Your task to perform on an android device: Open Google Chrome and click the shortcut for Amazon.com Image 0: 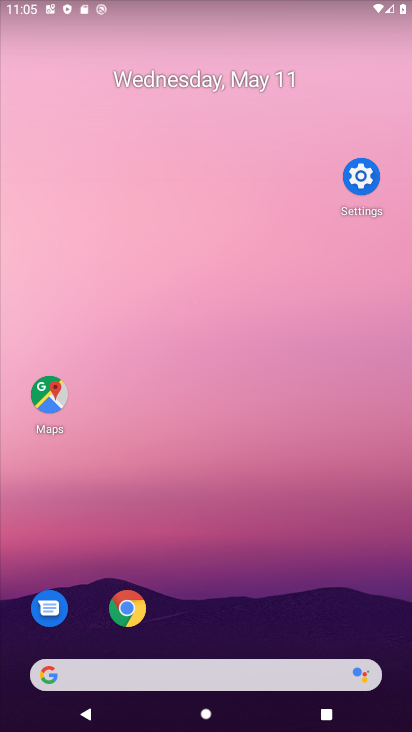
Step 0: drag from (340, 654) to (163, 180)
Your task to perform on an android device: Open Google Chrome and click the shortcut for Amazon.com Image 1: 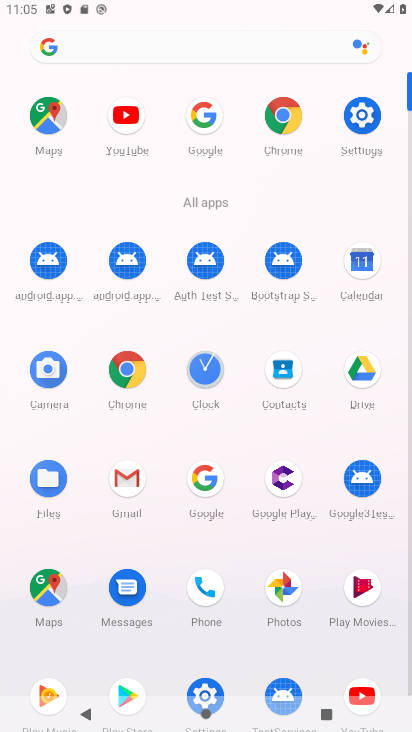
Step 1: click (273, 118)
Your task to perform on an android device: Open Google Chrome and click the shortcut for Amazon.com Image 2: 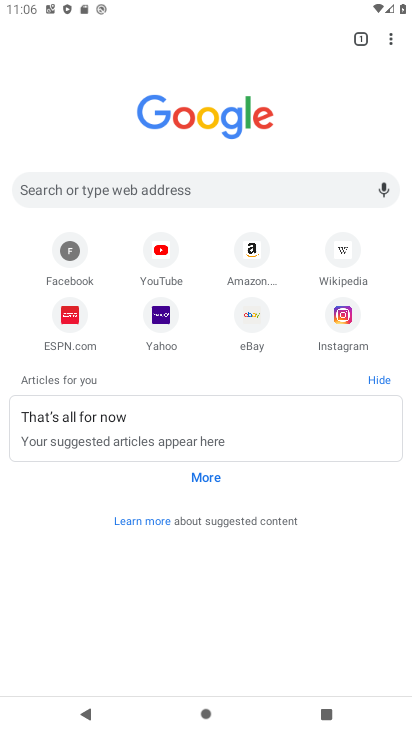
Step 2: press back button
Your task to perform on an android device: Open Google Chrome and click the shortcut for Amazon.com Image 3: 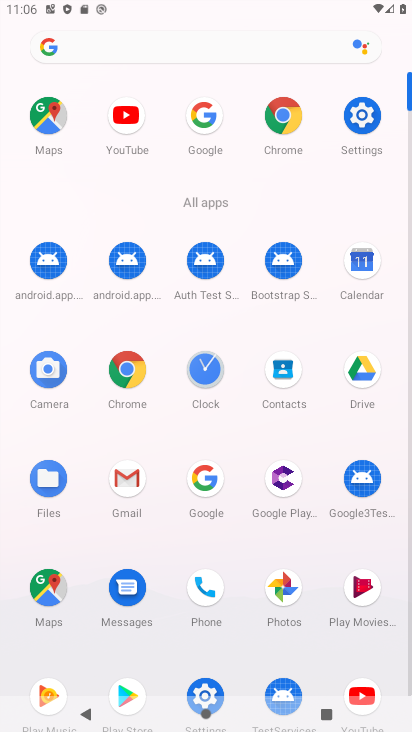
Step 3: click (250, 244)
Your task to perform on an android device: Open Google Chrome and click the shortcut for Amazon.com Image 4: 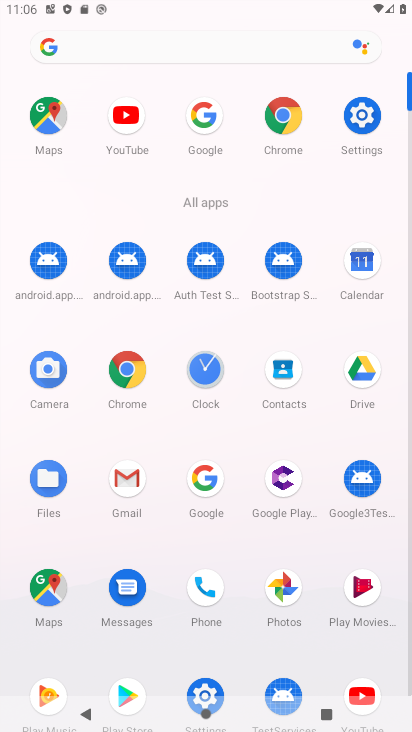
Step 4: click (279, 111)
Your task to perform on an android device: Open Google Chrome and click the shortcut for Amazon.com Image 5: 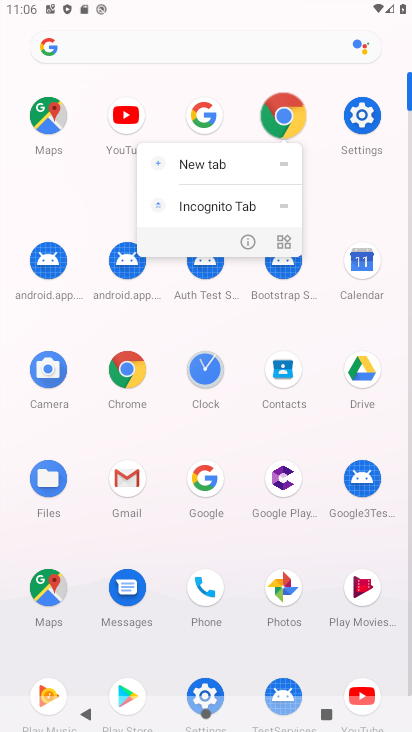
Step 5: click (279, 111)
Your task to perform on an android device: Open Google Chrome and click the shortcut for Amazon.com Image 6: 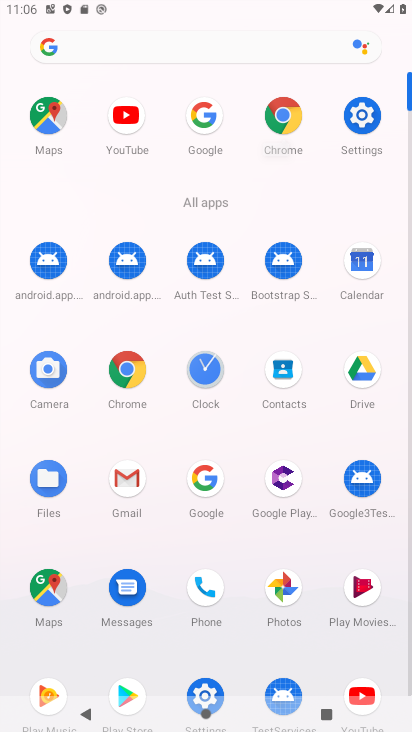
Step 6: click (279, 111)
Your task to perform on an android device: Open Google Chrome and click the shortcut for Amazon.com Image 7: 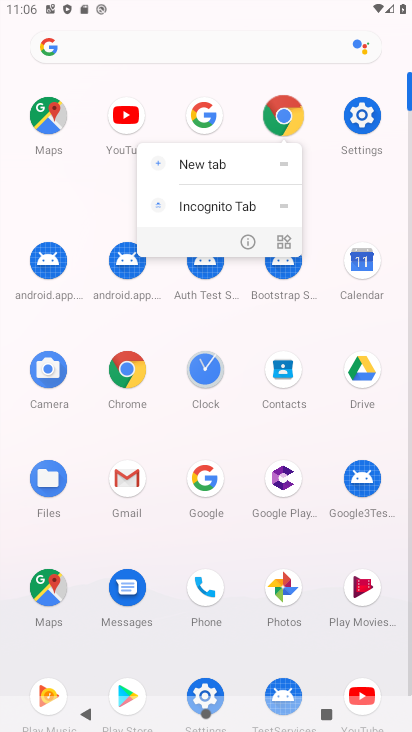
Step 7: click (279, 111)
Your task to perform on an android device: Open Google Chrome and click the shortcut for Amazon.com Image 8: 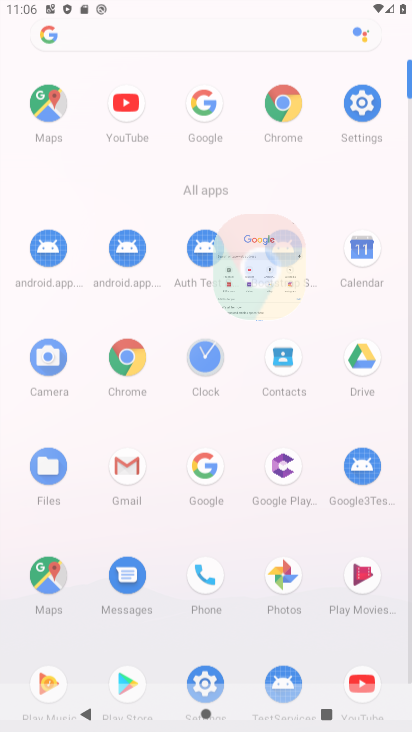
Step 8: click (279, 110)
Your task to perform on an android device: Open Google Chrome and click the shortcut for Amazon.com Image 9: 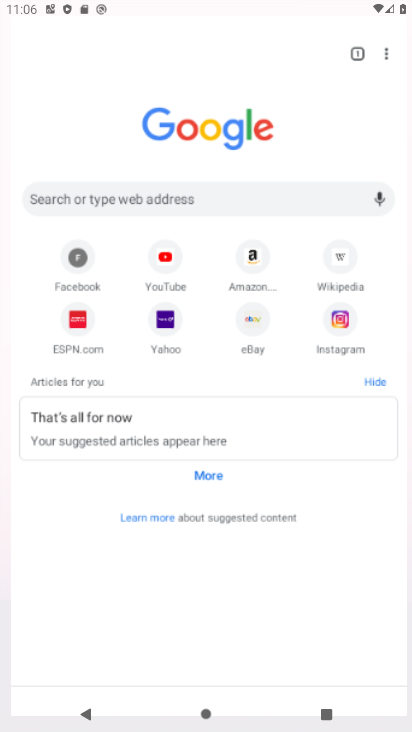
Step 9: click (277, 108)
Your task to perform on an android device: Open Google Chrome and click the shortcut for Amazon.com Image 10: 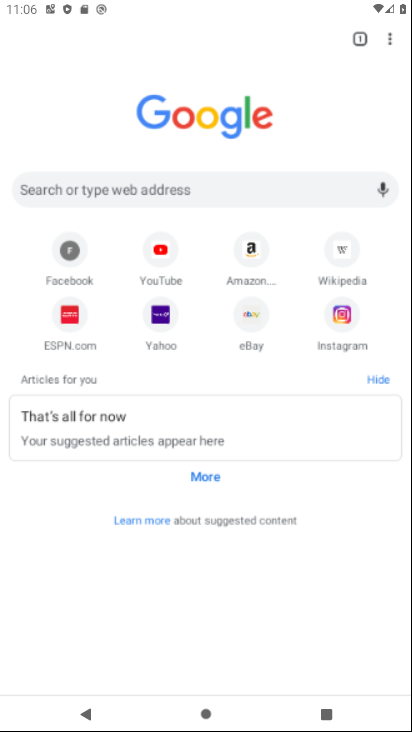
Step 10: click (273, 105)
Your task to perform on an android device: Open Google Chrome and click the shortcut for Amazon.com Image 11: 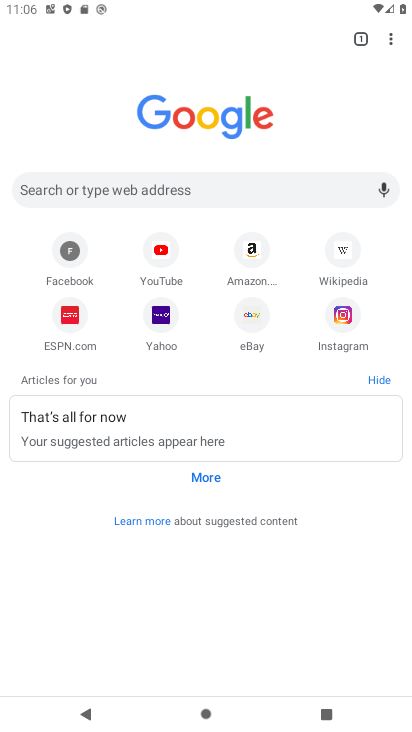
Step 11: click (251, 253)
Your task to perform on an android device: Open Google Chrome and click the shortcut for Amazon.com Image 12: 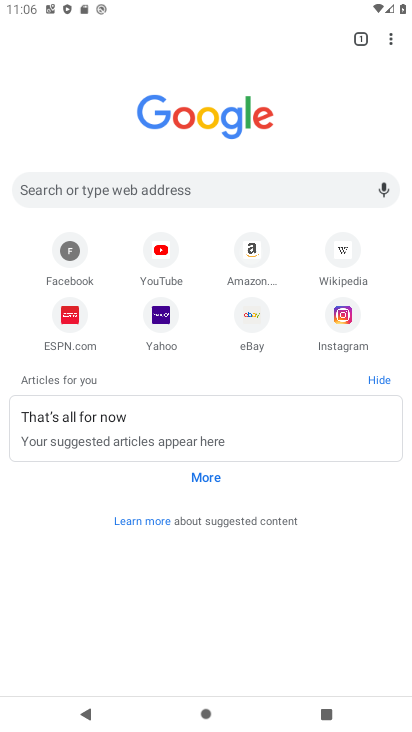
Step 12: click (250, 248)
Your task to perform on an android device: Open Google Chrome and click the shortcut for Amazon.com Image 13: 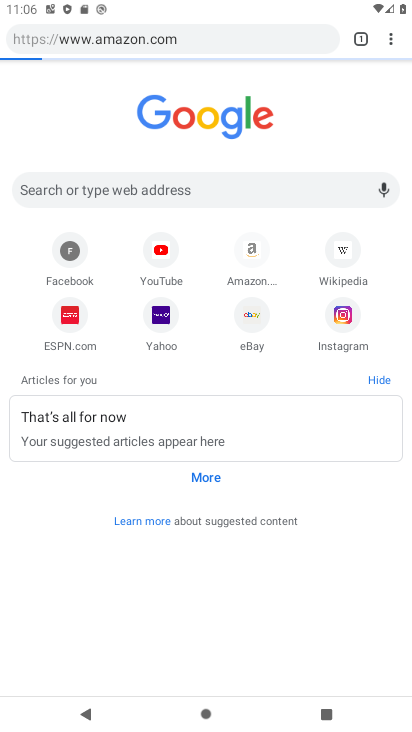
Step 13: click (250, 248)
Your task to perform on an android device: Open Google Chrome and click the shortcut for Amazon.com Image 14: 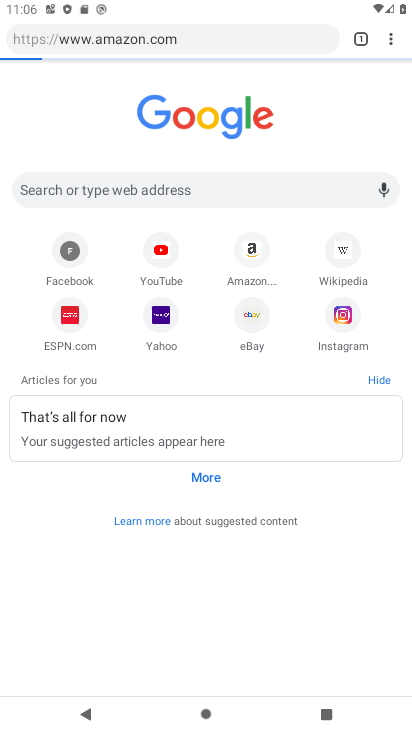
Step 14: click (250, 248)
Your task to perform on an android device: Open Google Chrome and click the shortcut for Amazon.com Image 15: 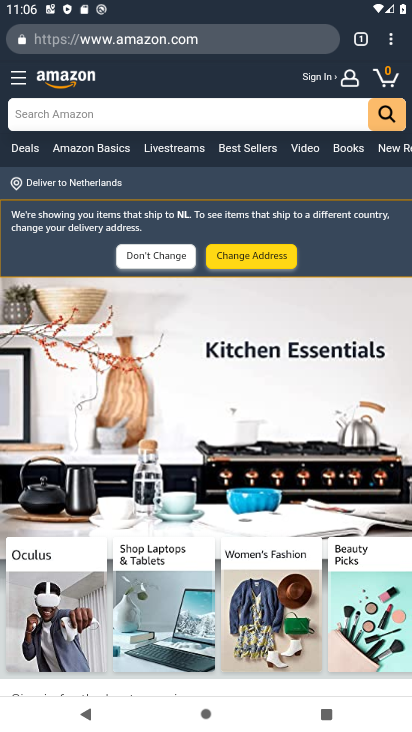
Step 15: task complete